Your task to perform on an android device: toggle notification dots Image 0: 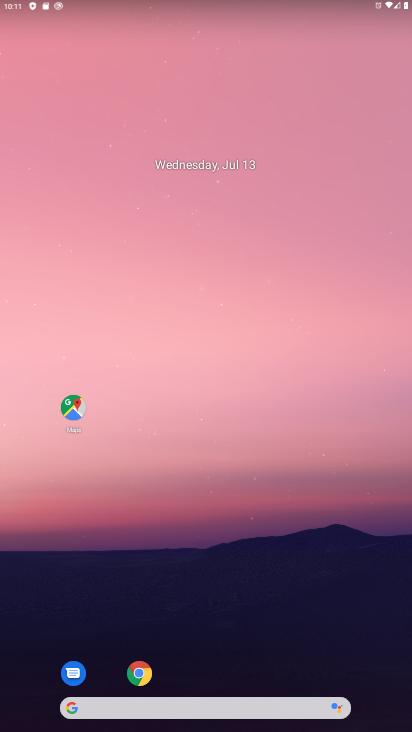
Step 0: press home button
Your task to perform on an android device: toggle notification dots Image 1: 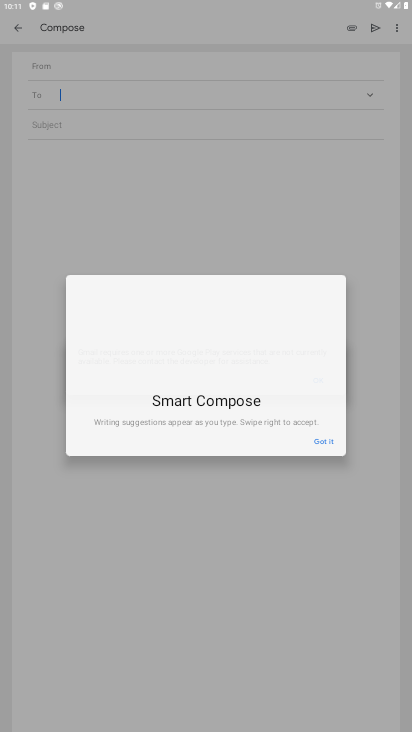
Step 1: drag from (232, 704) to (251, 368)
Your task to perform on an android device: toggle notification dots Image 2: 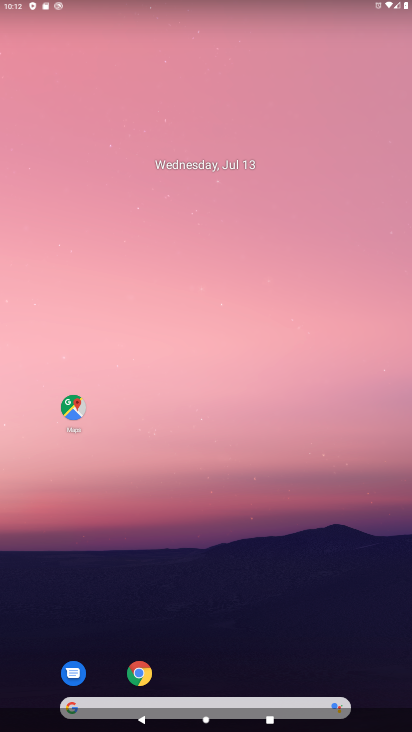
Step 2: drag from (250, 696) to (275, 181)
Your task to perform on an android device: toggle notification dots Image 3: 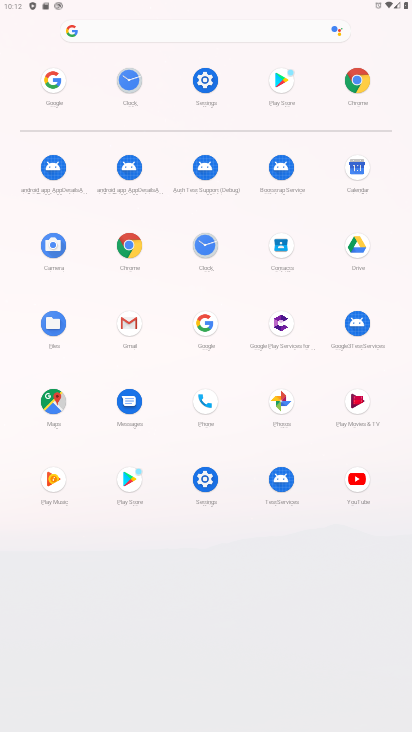
Step 3: click (203, 84)
Your task to perform on an android device: toggle notification dots Image 4: 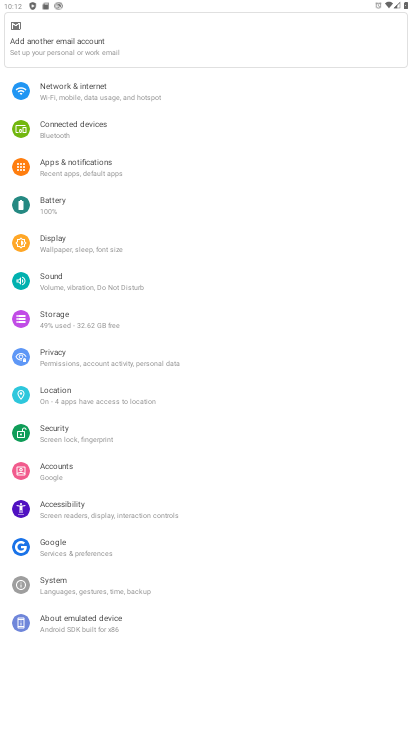
Step 4: click (99, 167)
Your task to perform on an android device: toggle notification dots Image 5: 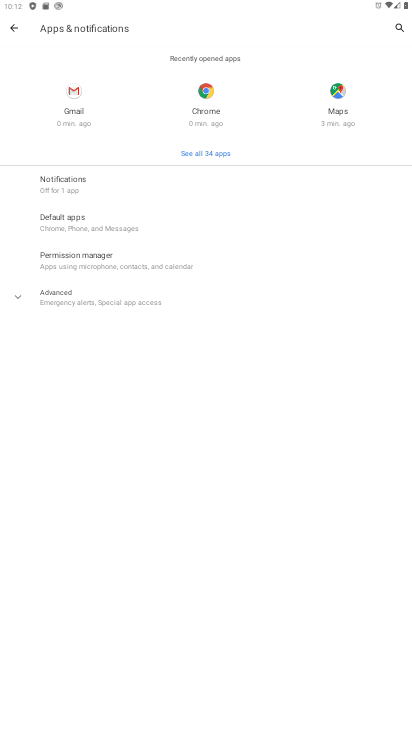
Step 5: click (60, 299)
Your task to perform on an android device: toggle notification dots Image 6: 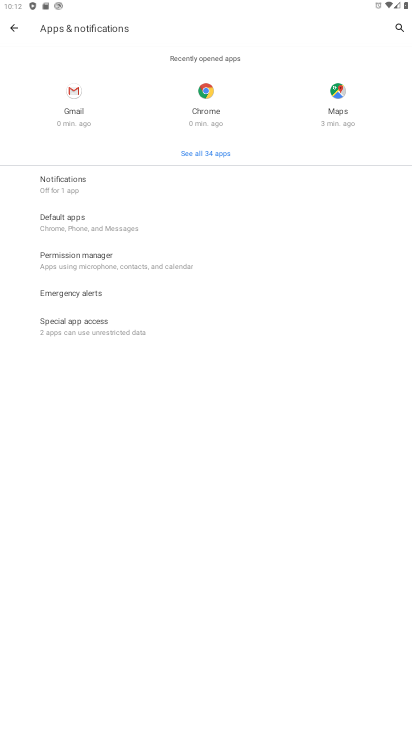
Step 6: click (47, 185)
Your task to perform on an android device: toggle notification dots Image 7: 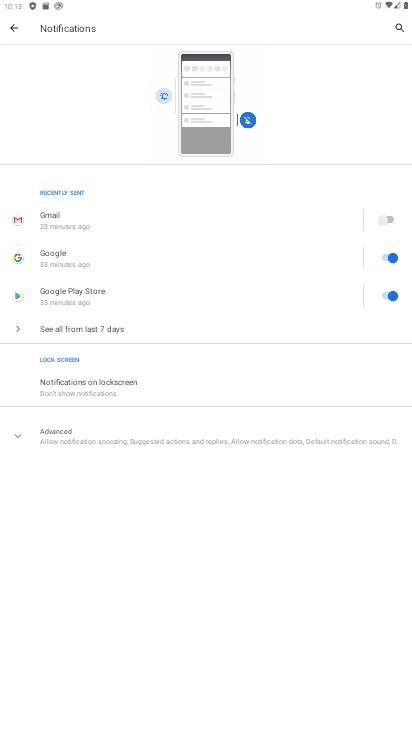
Step 7: click (107, 445)
Your task to perform on an android device: toggle notification dots Image 8: 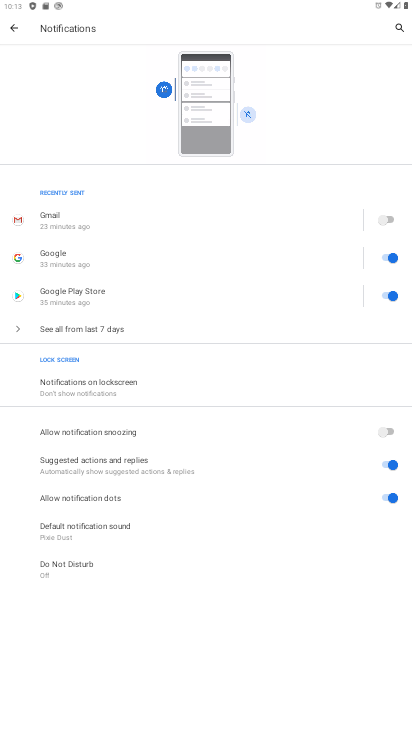
Step 8: click (390, 498)
Your task to perform on an android device: toggle notification dots Image 9: 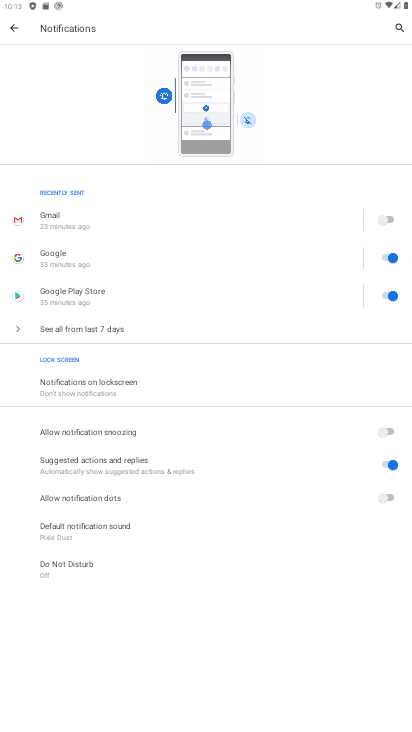
Step 9: task complete